Your task to perform on an android device: toggle wifi Image 0: 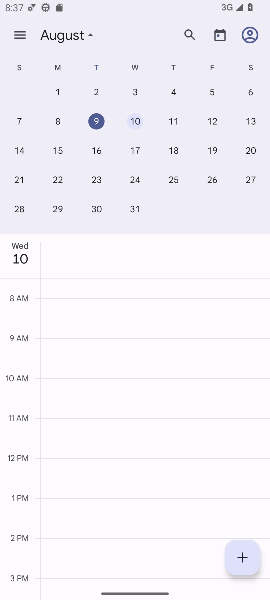
Step 0: press home button
Your task to perform on an android device: toggle wifi Image 1: 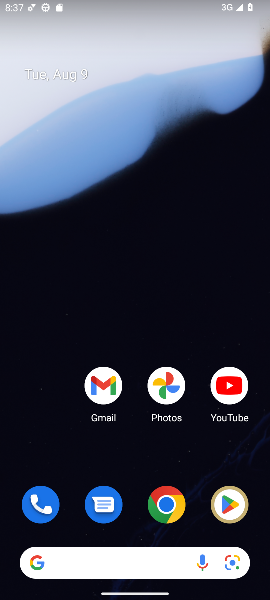
Step 1: drag from (142, 475) to (123, 99)
Your task to perform on an android device: toggle wifi Image 2: 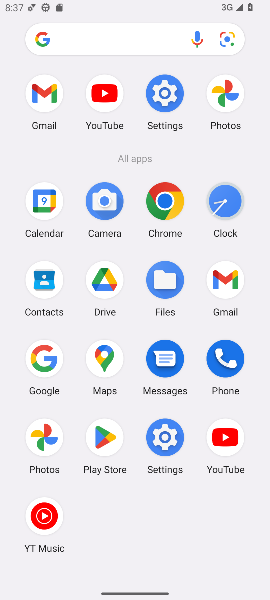
Step 2: click (168, 92)
Your task to perform on an android device: toggle wifi Image 3: 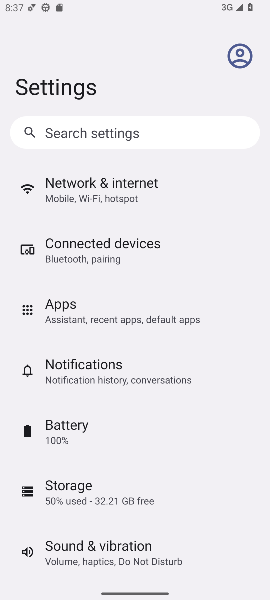
Step 3: click (101, 176)
Your task to perform on an android device: toggle wifi Image 4: 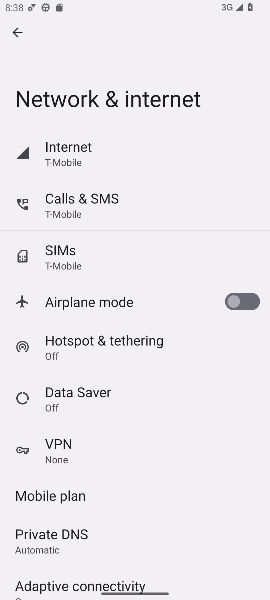
Step 4: click (65, 147)
Your task to perform on an android device: toggle wifi Image 5: 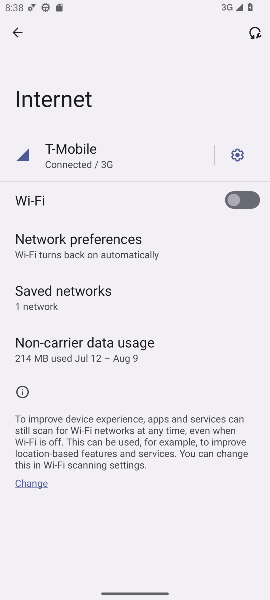
Step 5: click (231, 205)
Your task to perform on an android device: toggle wifi Image 6: 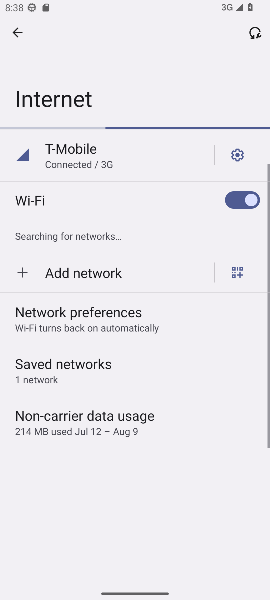
Step 6: task complete